Your task to perform on an android device: open app "Paramount+ | Peak Streaming" Image 0: 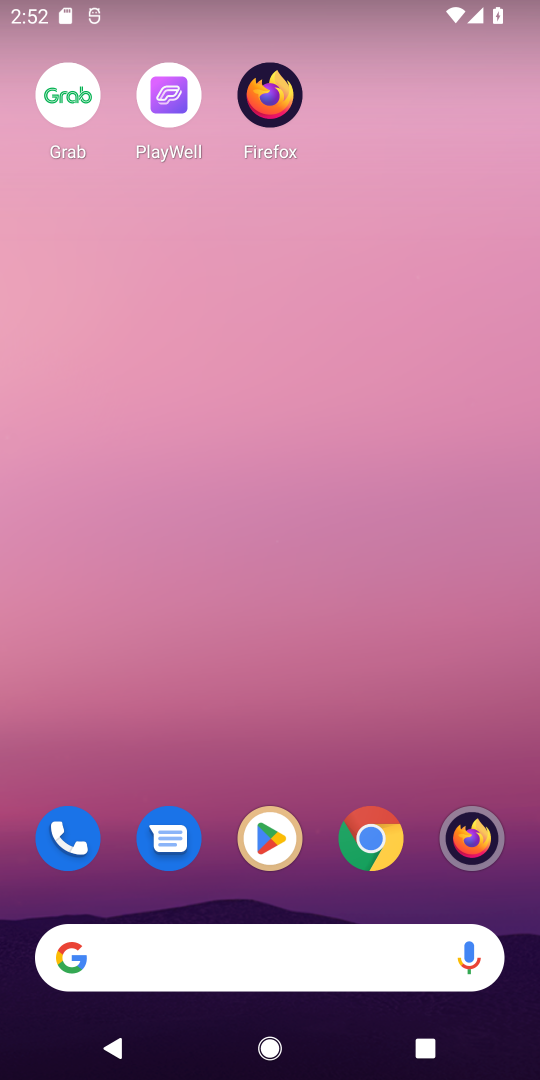
Step 0: click (291, 829)
Your task to perform on an android device: open app "Paramount+ | Peak Streaming" Image 1: 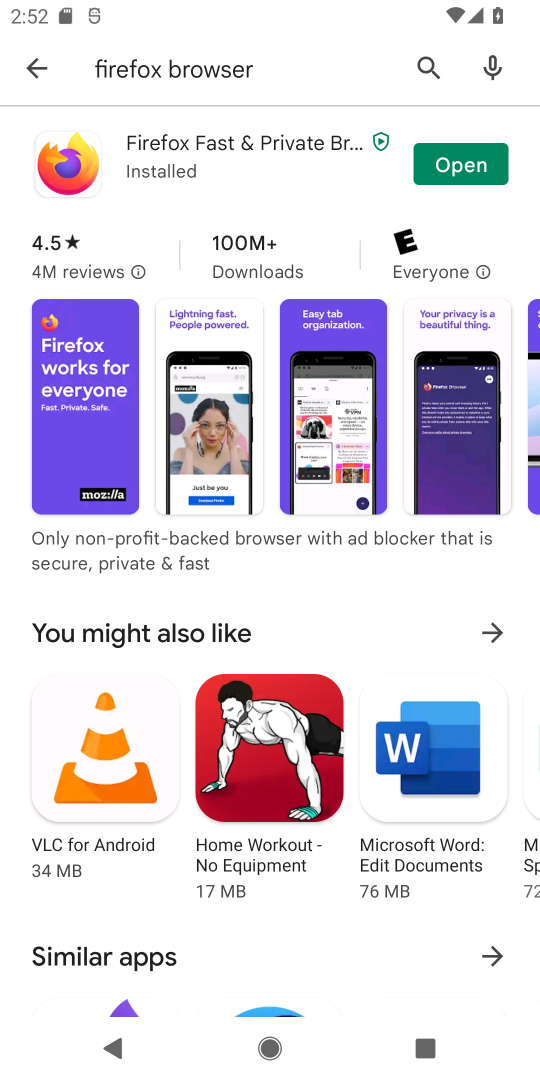
Step 1: click (424, 65)
Your task to perform on an android device: open app "Paramount+ | Peak Streaming" Image 2: 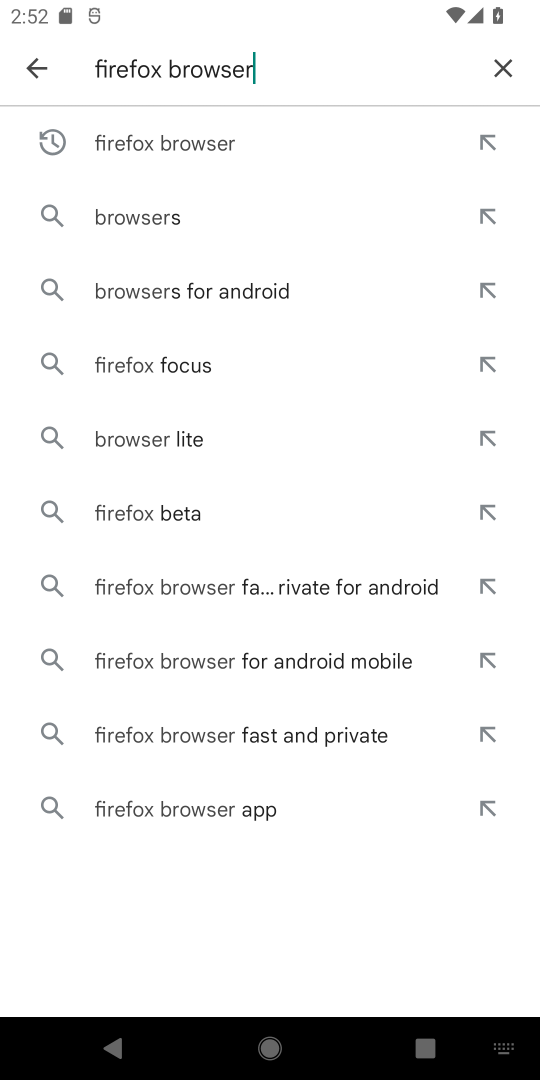
Step 2: click (505, 65)
Your task to perform on an android device: open app "Paramount+ | Peak Streaming" Image 3: 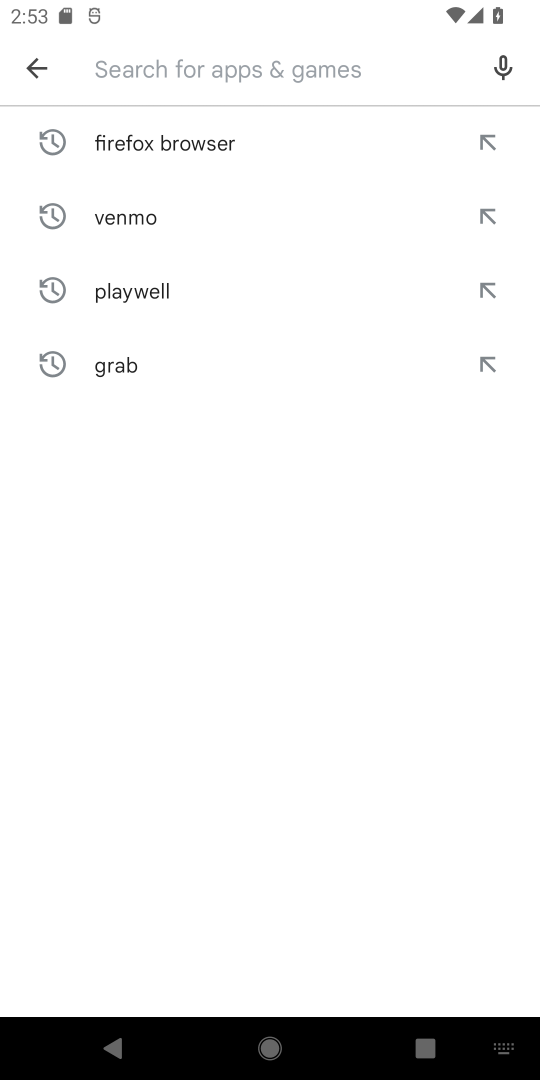
Step 3: type "Paramount+ | Peak Streaming"
Your task to perform on an android device: open app "Paramount+ | Peak Streaming" Image 4: 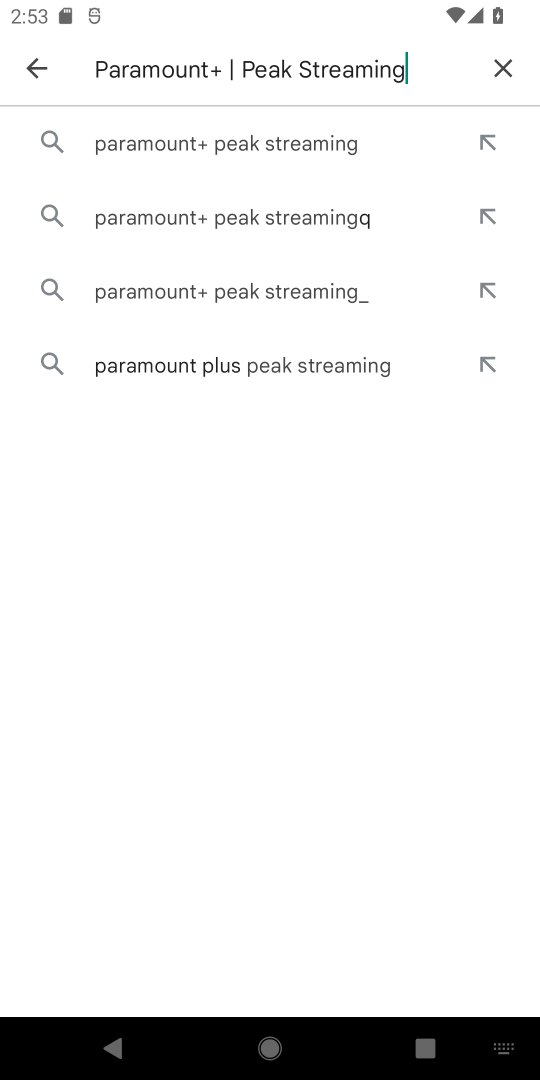
Step 4: click (256, 131)
Your task to perform on an android device: open app "Paramount+ | Peak Streaming" Image 5: 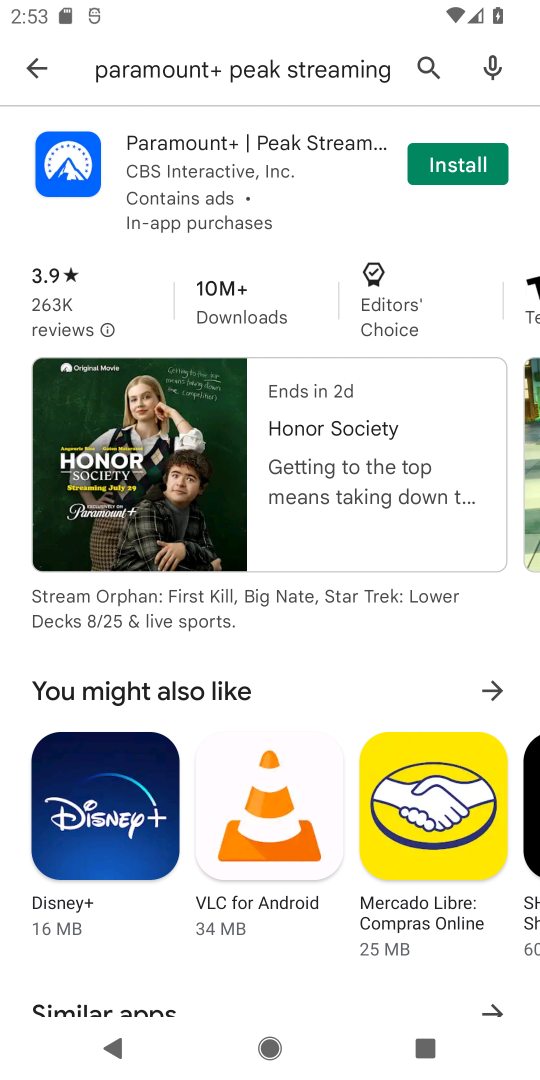
Step 5: task complete